Your task to perform on an android device: remove spam from my inbox in the gmail app Image 0: 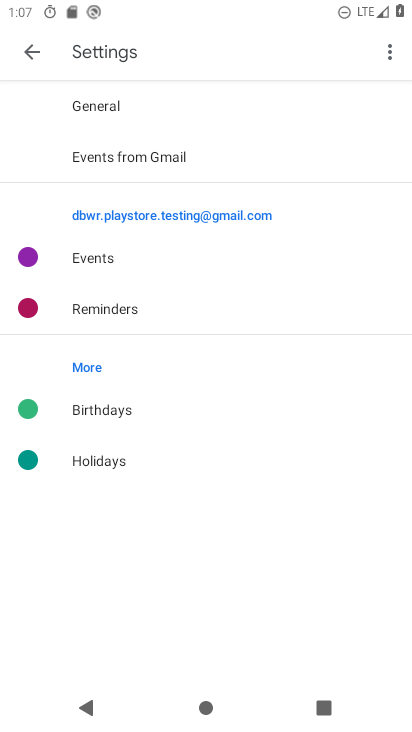
Step 0: press home button
Your task to perform on an android device: remove spam from my inbox in the gmail app Image 1: 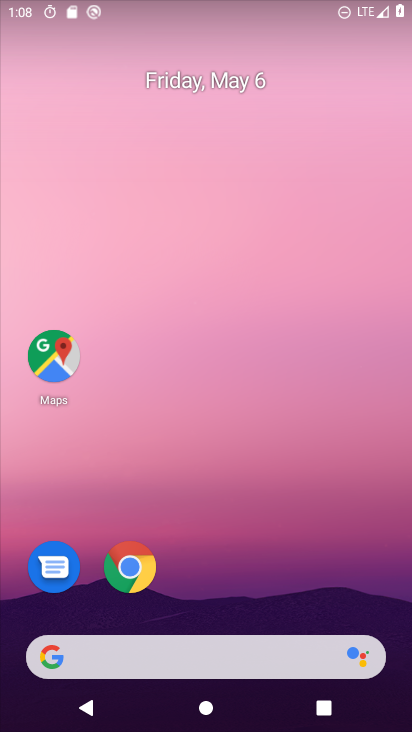
Step 1: drag from (335, 618) to (291, 5)
Your task to perform on an android device: remove spam from my inbox in the gmail app Image 2: 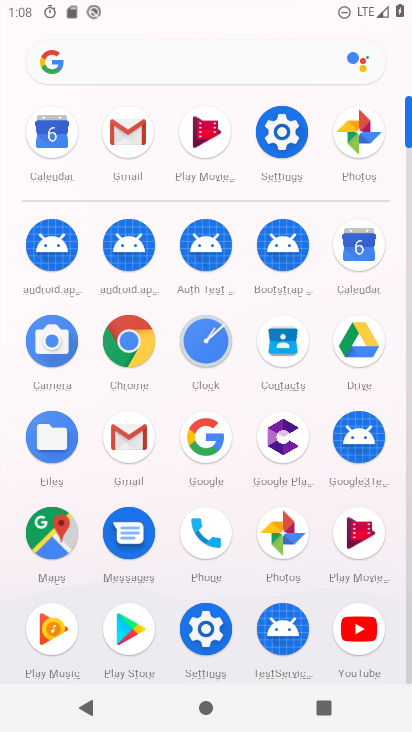
Step 2: click (130, 132)
Your task to perform on an android device: remove spam from my inbox in the gmail app Image 3: 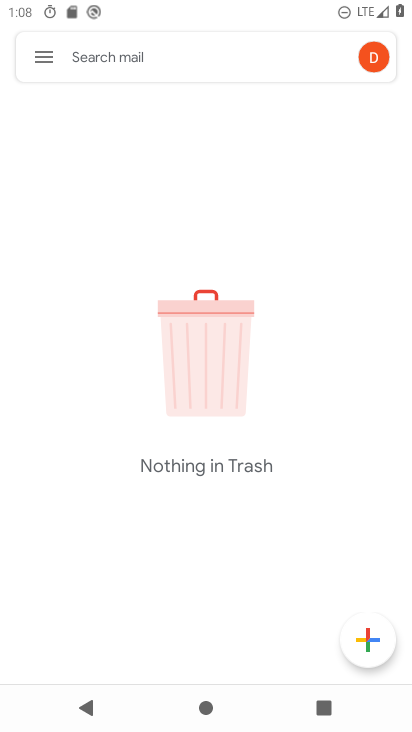
Step 3: click (41, 59)
Your task to perform on an android device: remove spam from my inbox in the gmail app Image 4: 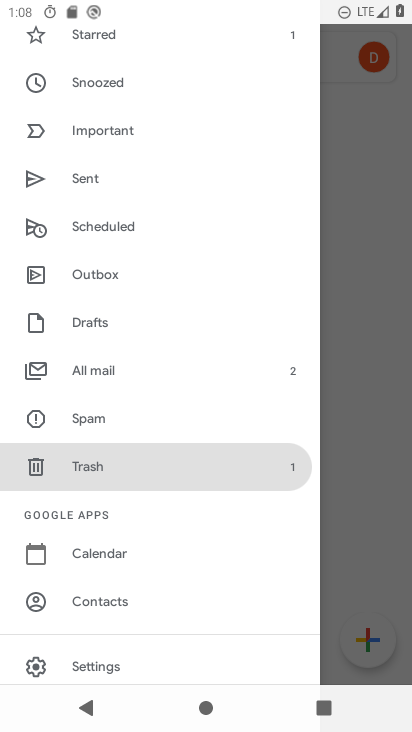
Step 4: click (96, 414)
Your task to perform on an android device: remove spam from my inbox in the gmail app Image 5: 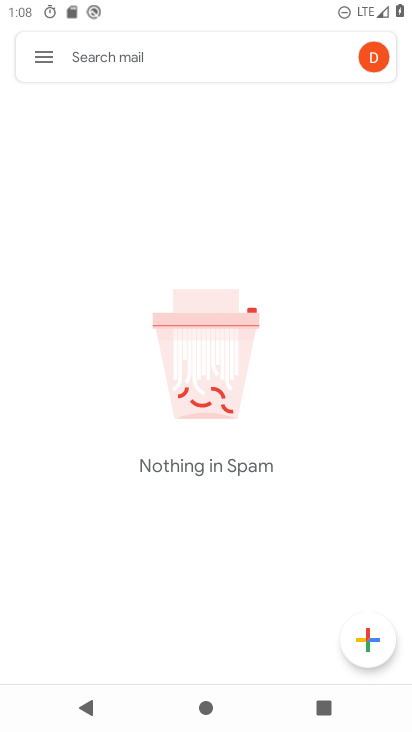
Step 5: task complete